Your task to perform on an android device: Open sound settings Image 0: 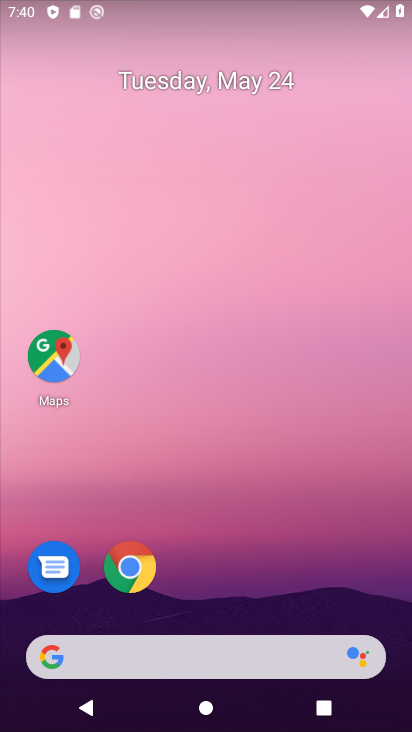
Step 0: drag from (173, 619) to (317, 83)
Your task to perform on an android device: Open sound settings Image 1: 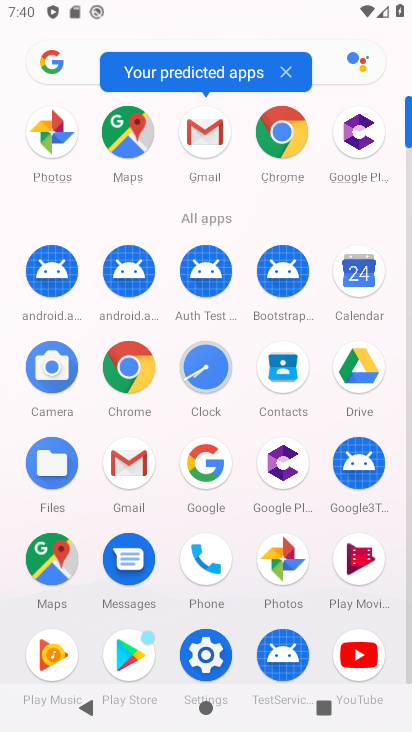
Step 1: click (208, 660)
Your task to perform on an android device: Open sound settings Image 2: 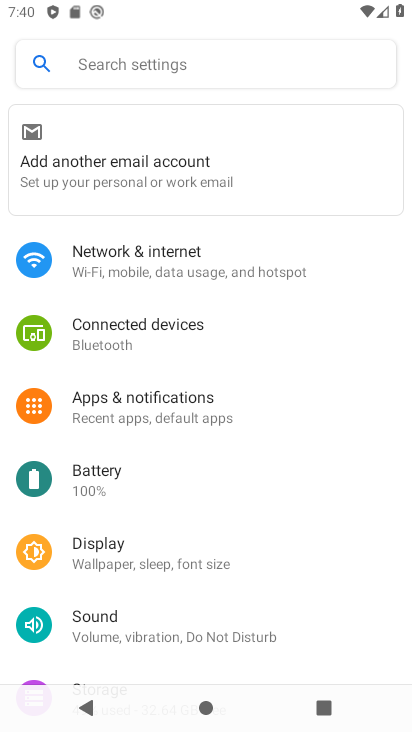
Step 2: click (112, 613)
Your task to perform on an android device: Open sound settings Image 3: 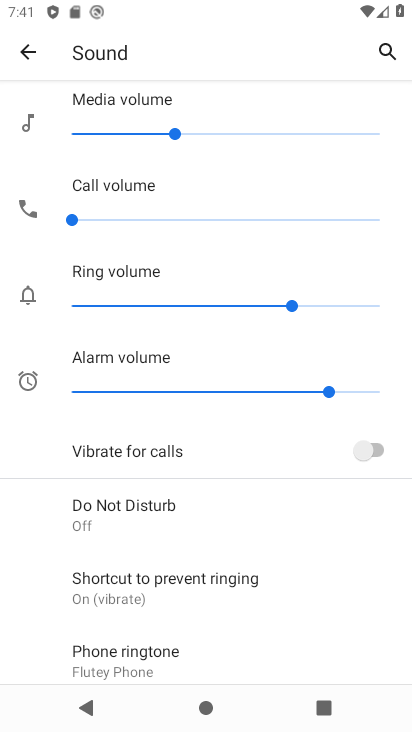
Step 3: task complete